Your task to perform on an android device: set an alarm Image 0: 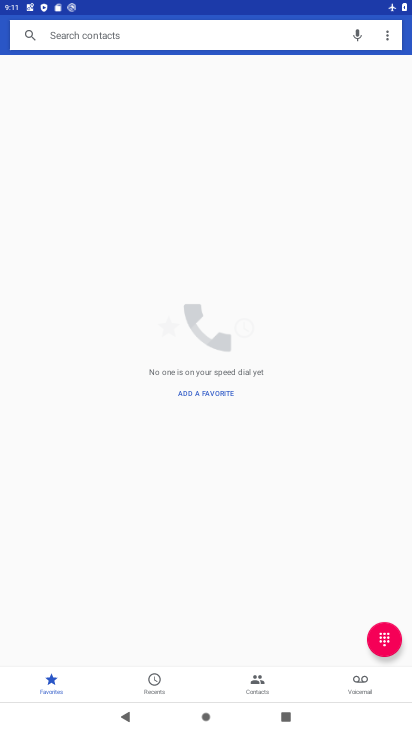
Step 0: press home button
Your task to perform on an android device: set an alarm Image 1: 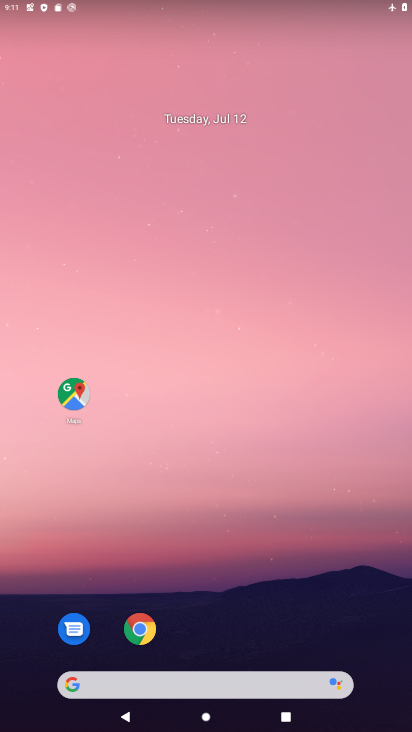
Step 1: drag from (248, 620) to (233, 172)
Your task to perform on an android device: set an alarm Image 2: 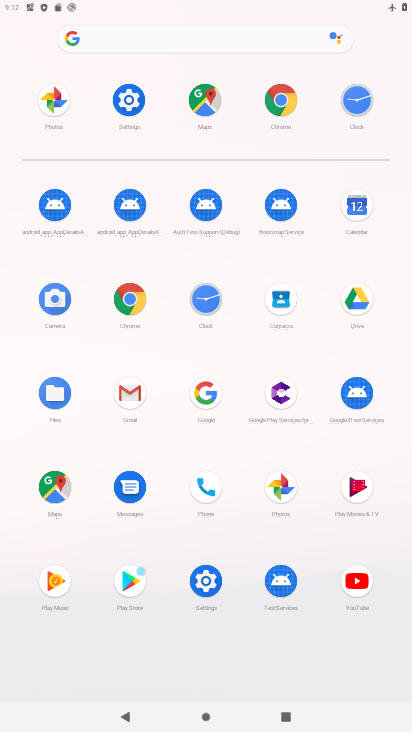
Step 2: click (190, 297)
Your task to perform on an android device: set an alarm Image 3: 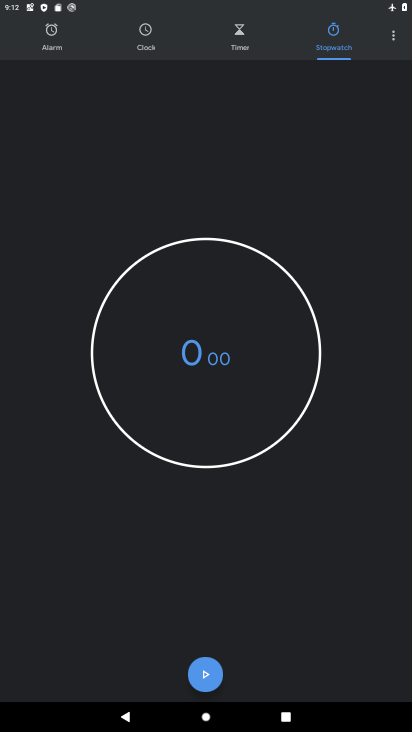
Step 3: click (41, 10)
Your task to perform on an android device: set an alarm Image 4: 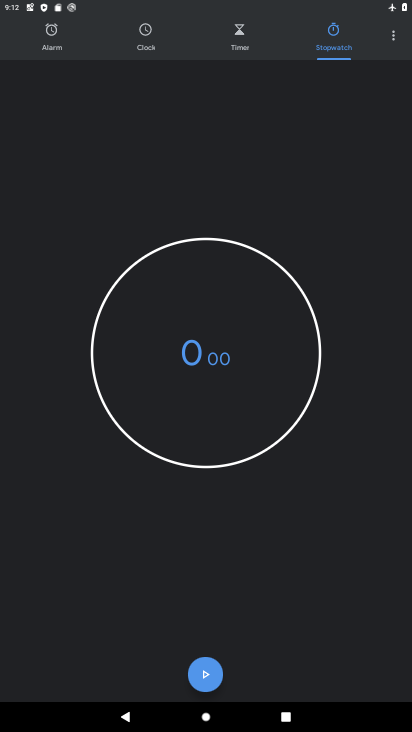
Step 4: click (52, 32)
Your task to perform on an android device: set an alarm Image 5: 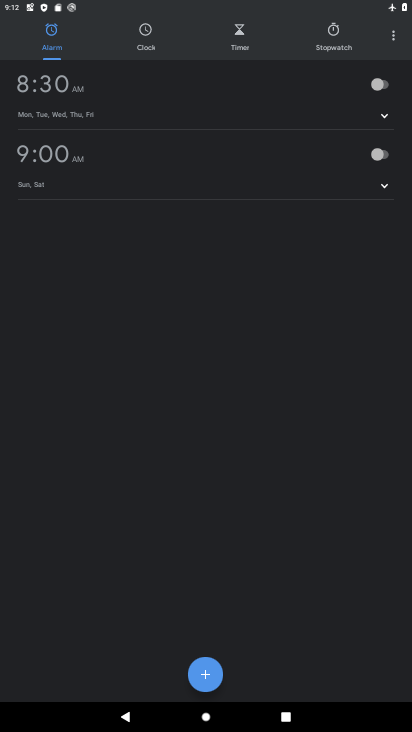
Step 5: click (374, 88)
Your task to perform on an android device: set an alarm Image 6: 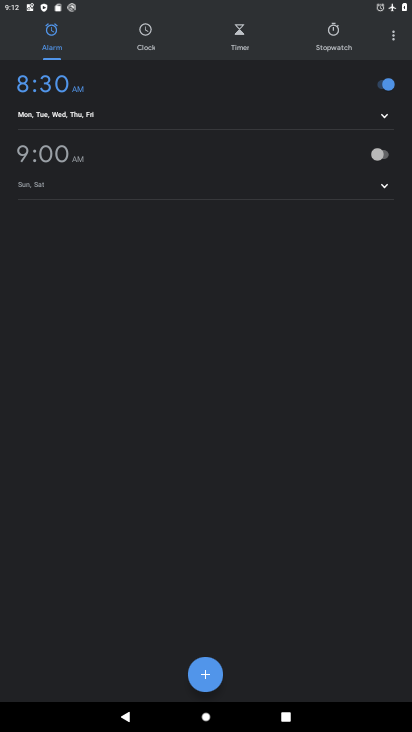
Step 6: task complete